Your task to perform on an android device: delete a single message in the gmail app Image 0: 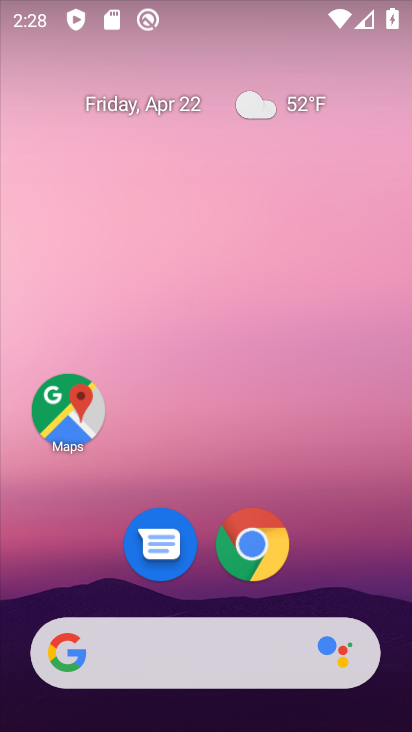
Step 0: drag from (209, 608) to (166, 1)
Your task to perform on an android device: delete a single message in the gmail app Image 1: 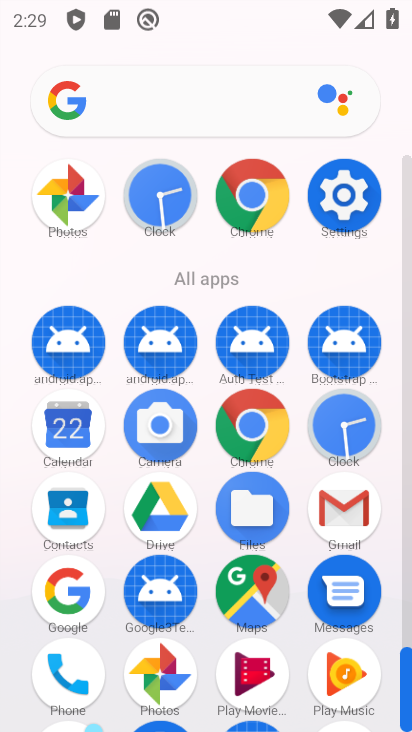
Step 1: click (339, 518)
Your task to perform on an android device: delete a single message in the gmail app Image 2: 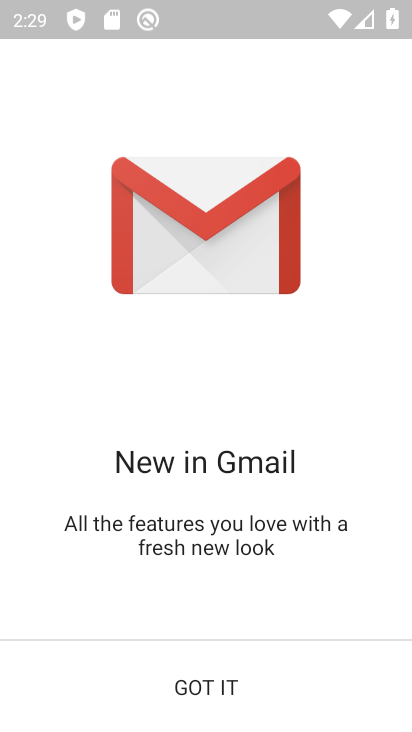
Step 2: click (212, 694)
Your task to perform on an android device: delete a single message in the gmail app Image 3: 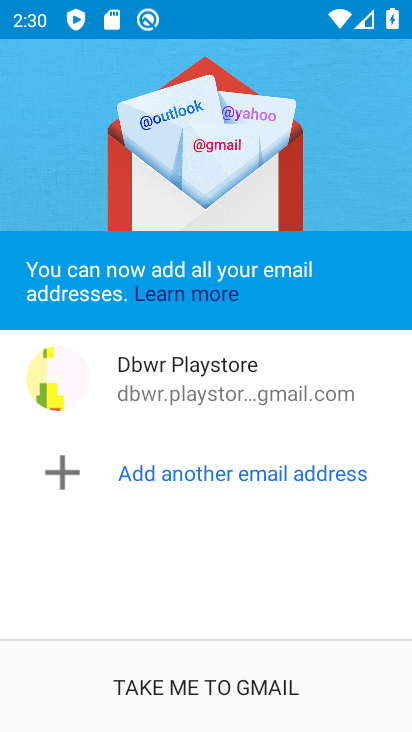
Step 3: click (185, 670)
Your task to perform on an android device: delete a single message in the gmail app Image 4: 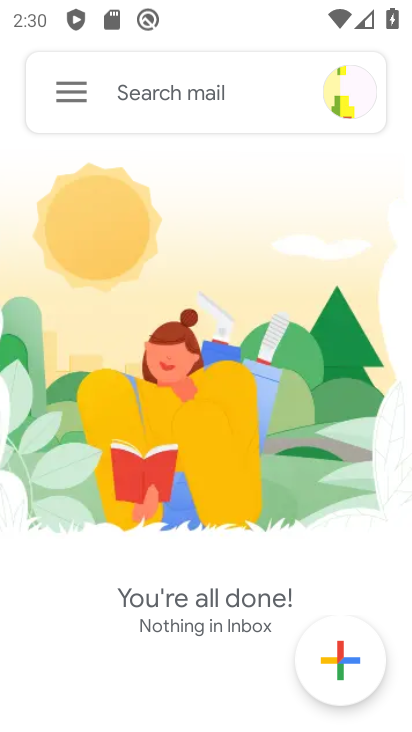
Step 4: task complete